Your task to perform on an android device: Open Maps and search for coffee Image 0: 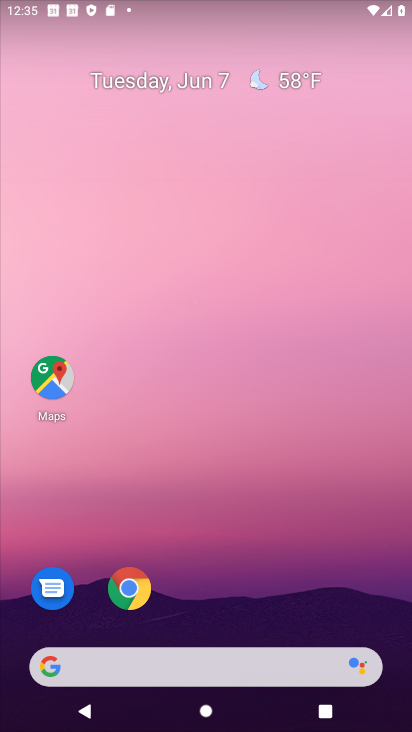
Step 0: drag from (319, 589) to (259, 149)
Your task to perform on an android device: Open Maps and search for coffee Image 1: 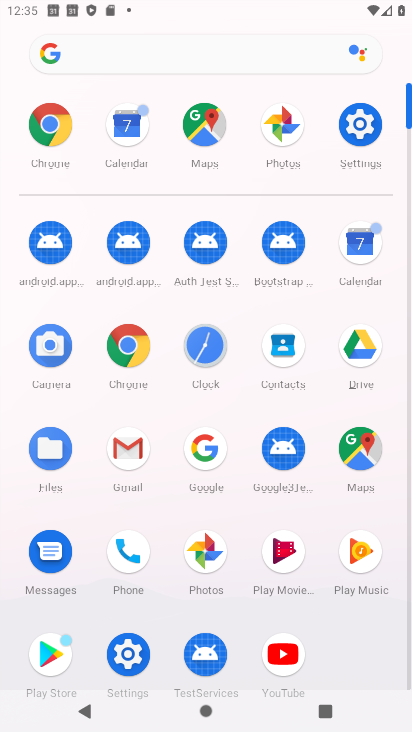
Step 1: click (361, 438)
Your task to perform on an android device: Open Maps and search for coffee Image 2: 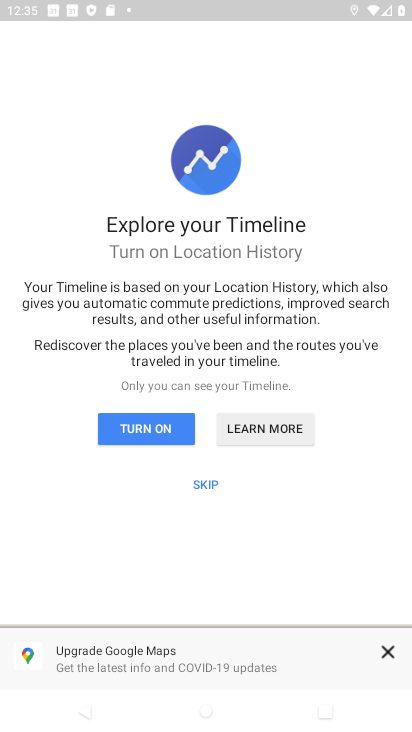
Step 2: click (212, 485)
Your task to perform on an android device: Open Maps and search for coffee Image 3: 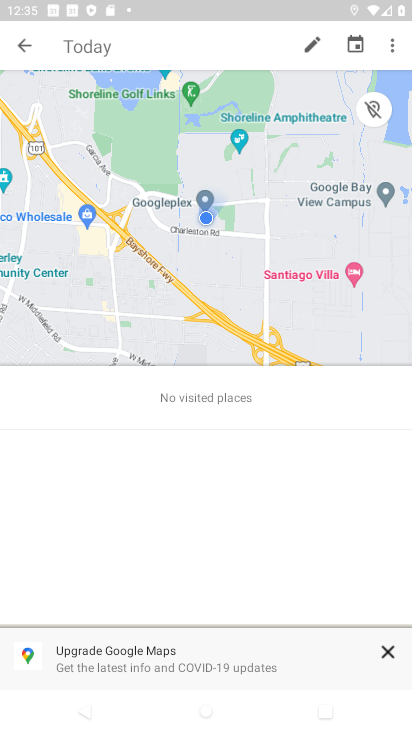
Step 3: click (392, 655)
Your task to perform on an android device: Open Maps and search for coffee Image 4: 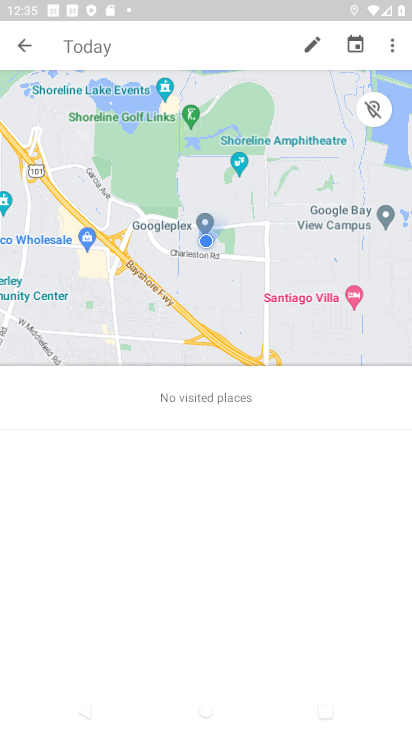
Step 4: task complete